Your task to perform on an android device: View the shopping cart on walmart.com. Search for "acer predator" on walmart.com, select the first entry, add it to the cart, then select checkout. Image 0: 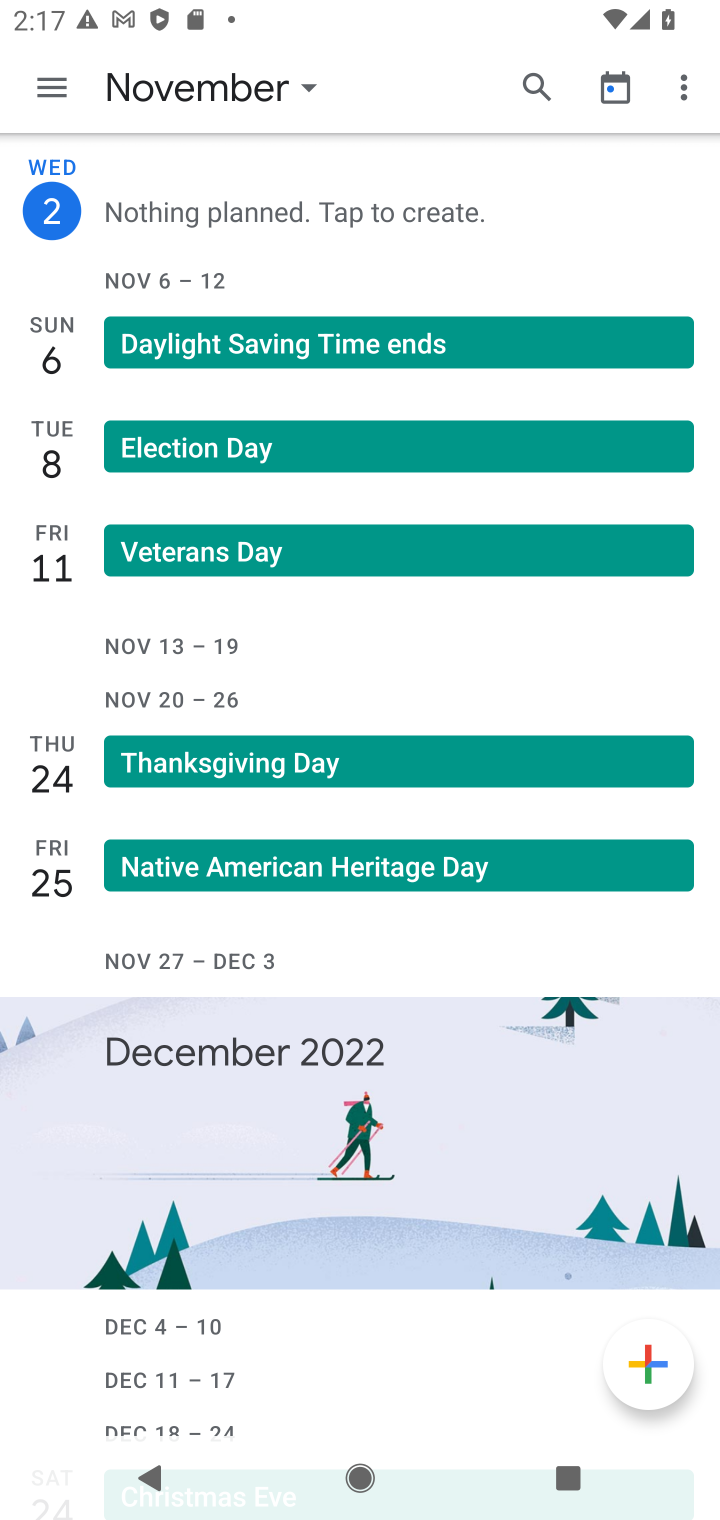
Step 0: press home button
Your task to perform on an android device: View the shopping cart on walmart.com. Search for "acer predator" on walmart.com, select the first entry, add it to the cart, then select checkout. Image 1: 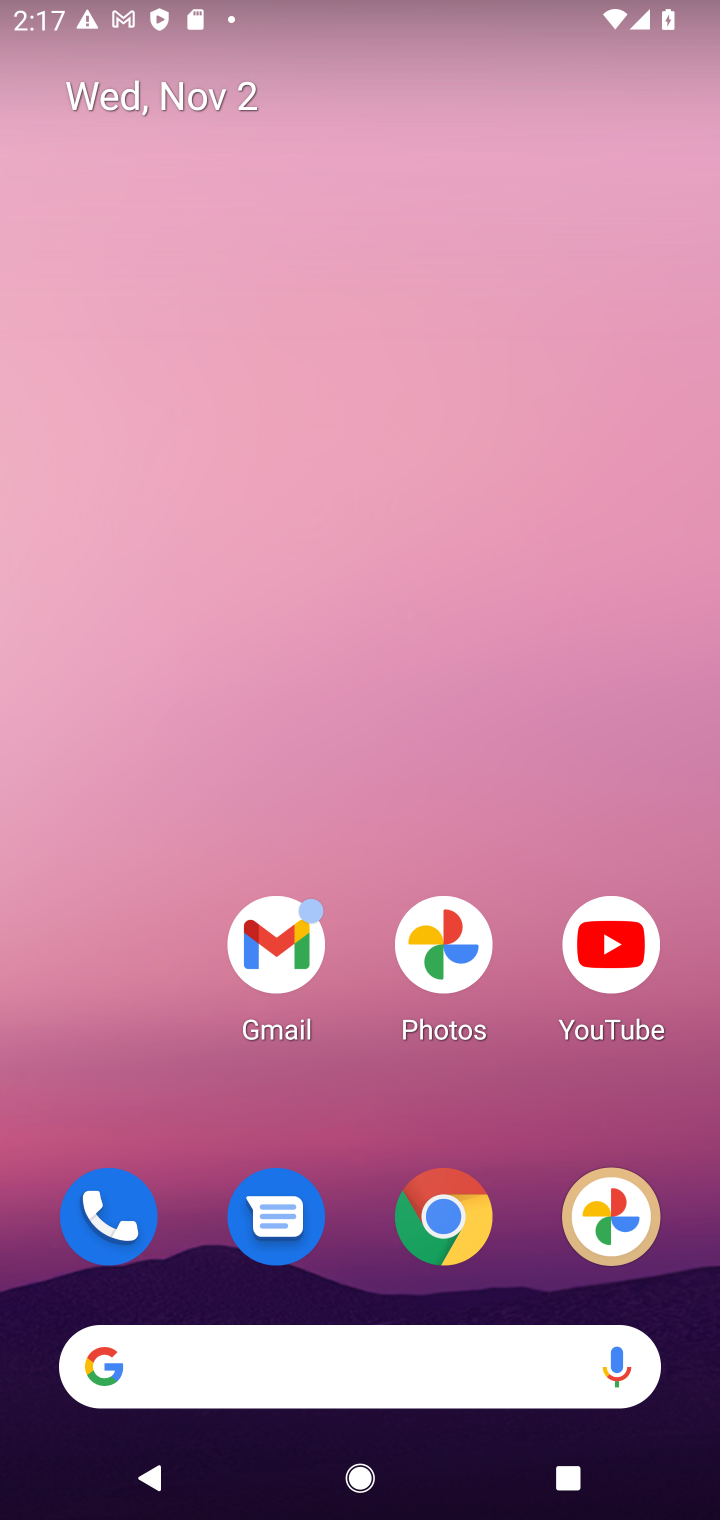
Step 1: click (466, 1230)
Your task to perform on an android device: View the shopping cart on walmart.com. Search for "acer predator" on walmart.com, select the first entry, add it to the cart, then select checkout. Image 2: 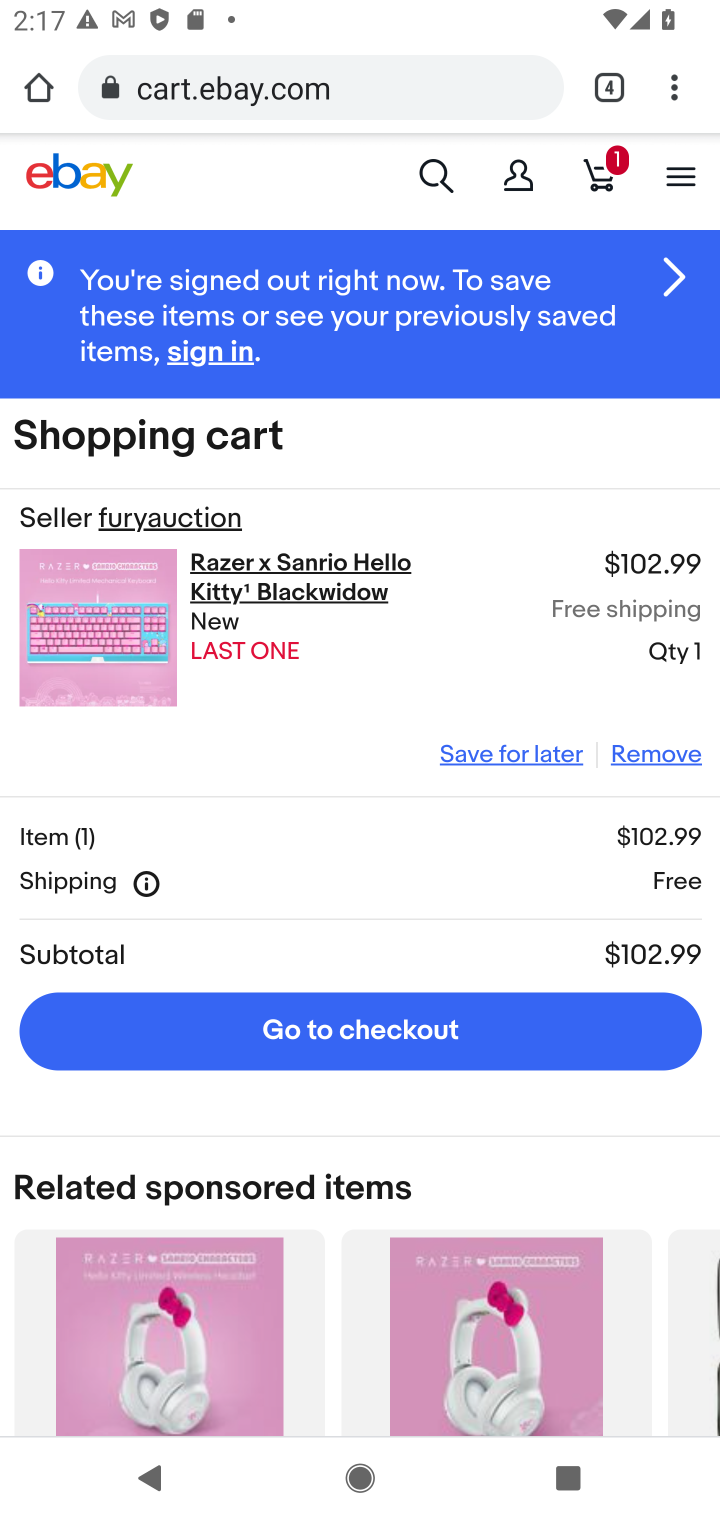
Step 2: click (607, 93)
Your task to perform on an android device: View the shopping cart on walmart.com. Search for "acer predator" on walmart.com, select the first entry, add it to the cart, then select checkout. Image 3: 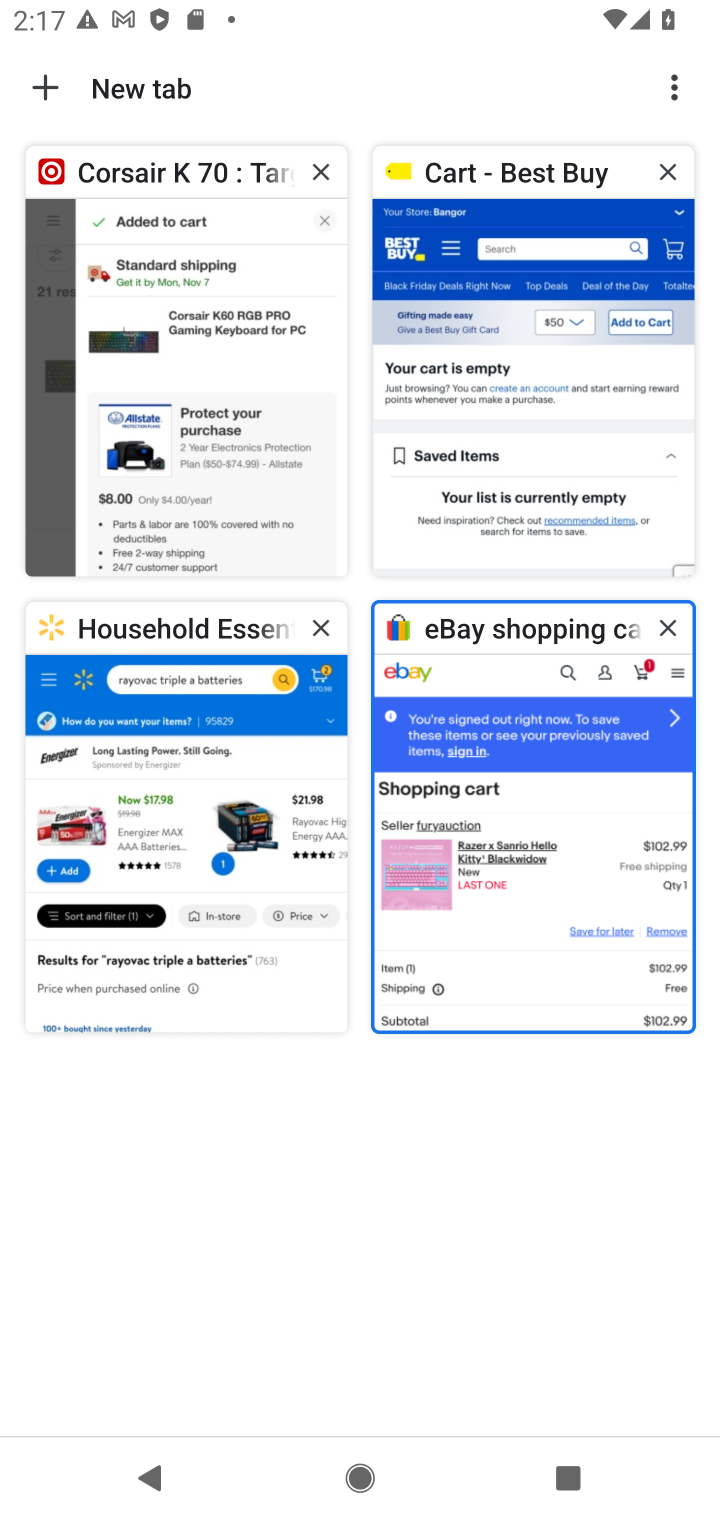
Step 3: click (169, 788)
Your task to perform on an android device: View the shopping cart on walmart.com. Search for "acer predator" on walmart.com, select the first entry, add it to the cart, then select checkout. Image 4: 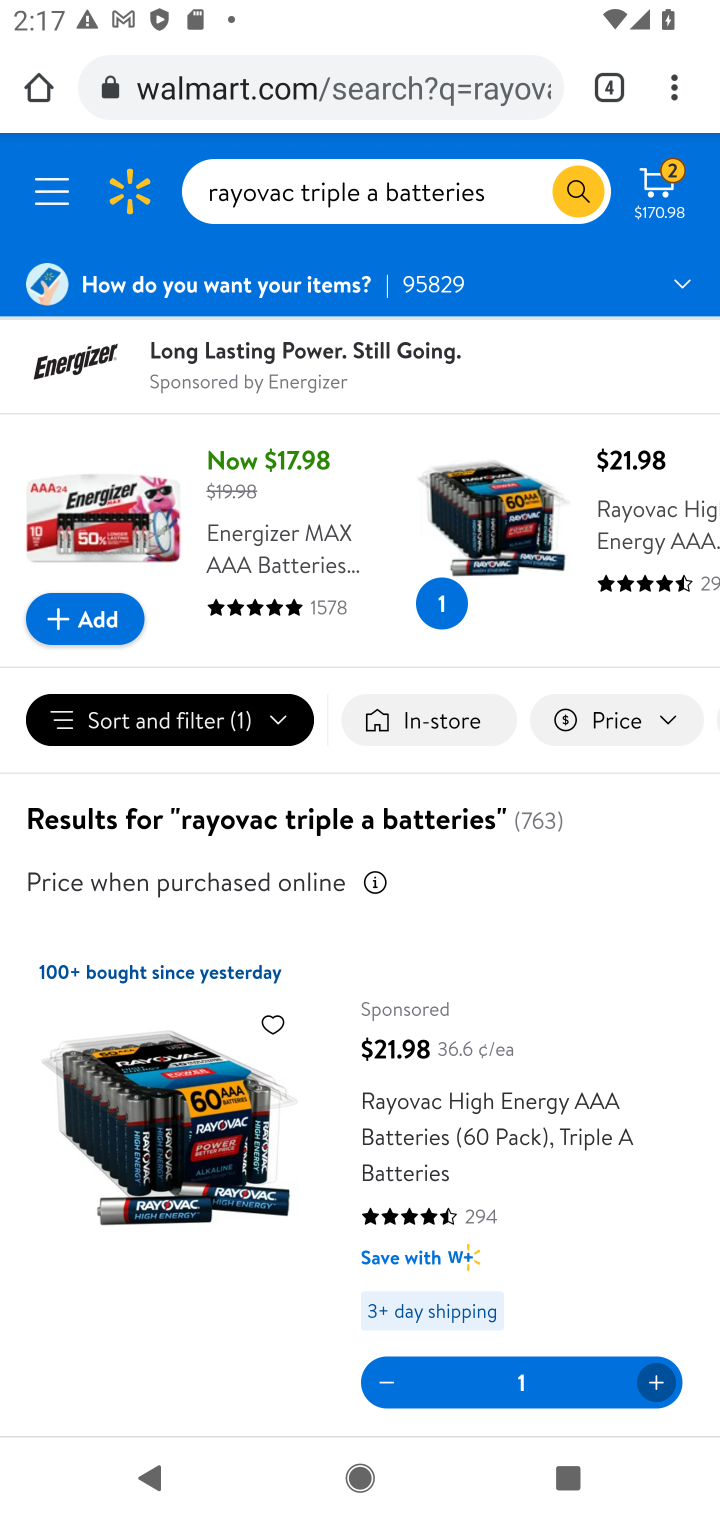
Step 4: click (497, 166)
Your task to perform on an android device: View the shopping cart on walmart.com. Search for "acer predator" on walmart.com, select the first entry, add it to the cart, then select checkout. Image 5: 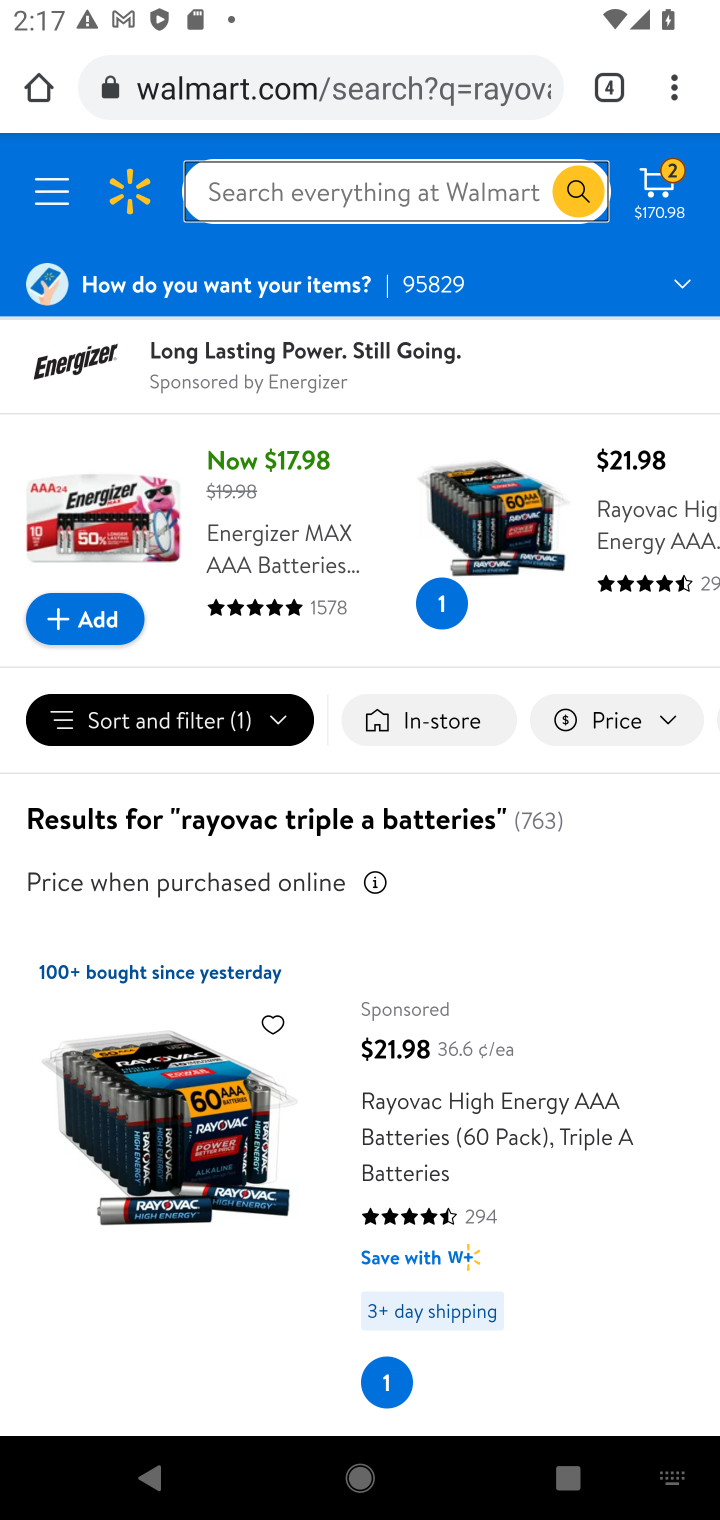
Step 5: type "acer predator"
Your task to perform on an android device: View the shopping cart on walmart.com. Search for "acer predator" on walmart.com, select the first entry, add it to the cart, then select checkout. Image 6: 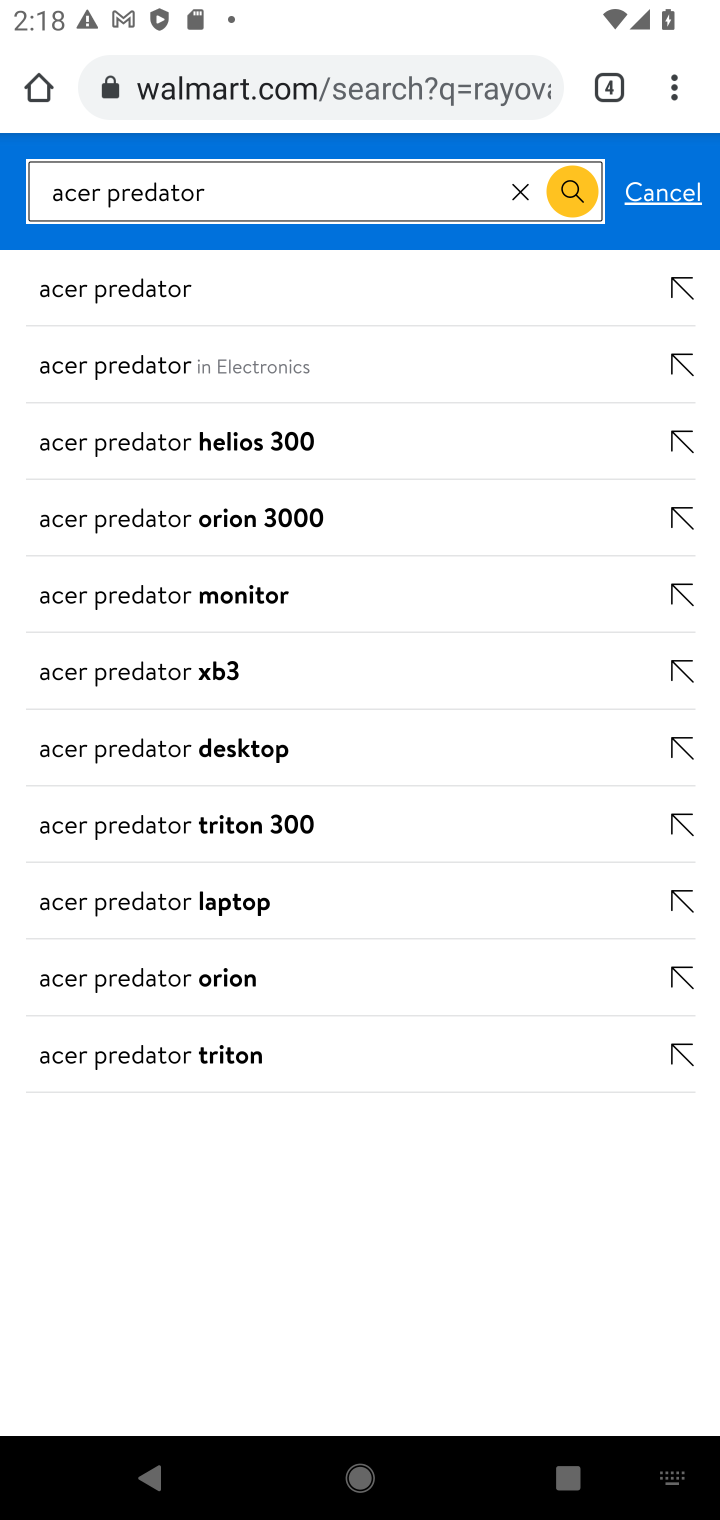
Step 6: click (164, 357)
Your task to perform on an android device: View the shopping cart on walmart.com. Search for "acer predator" on walmart.com, select the first entry, add it to the cart, then select checkout. Image 7: 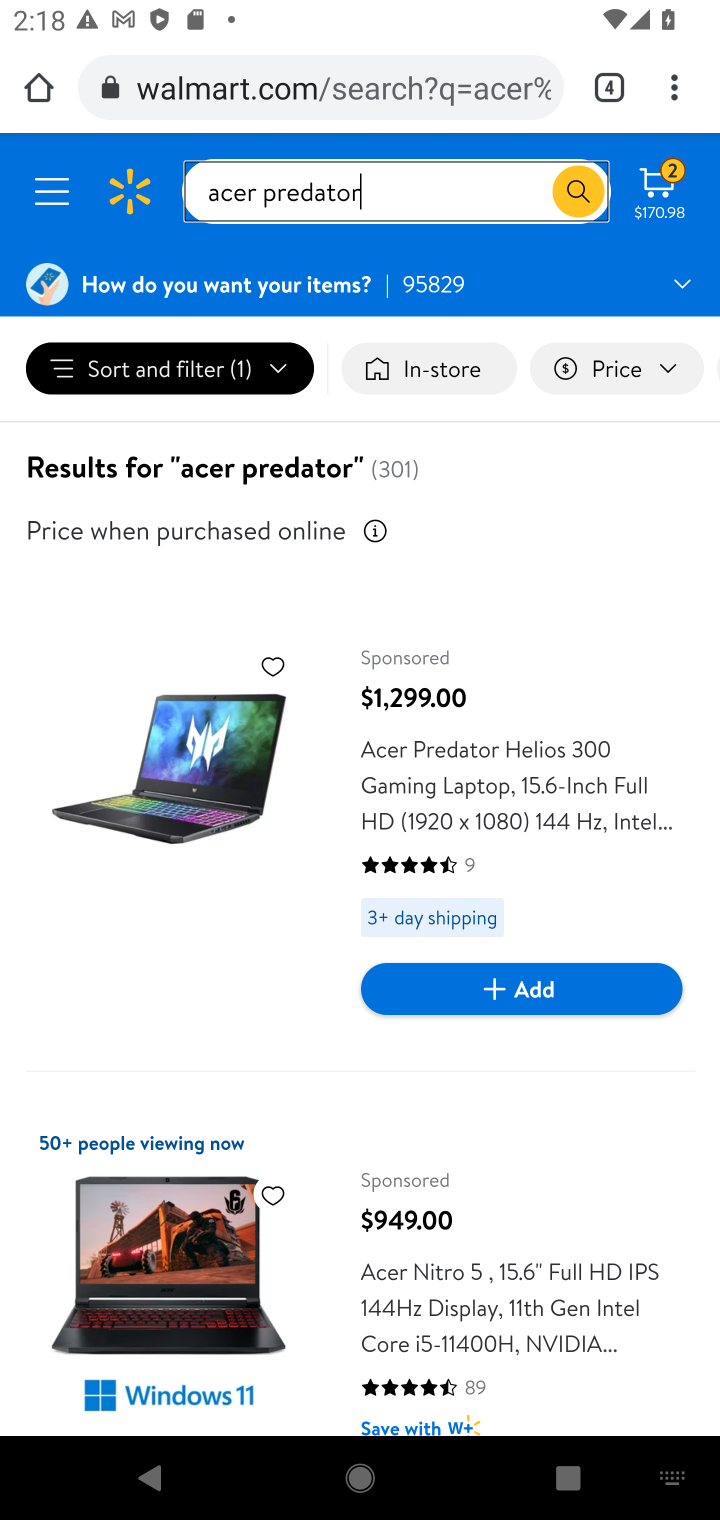
Step 7: click (462, 986)
Your task to perform on an android device: View the shopping cart on walmart.com. Search for "acer predator" on walmart.com, select the first entry, add it to the cart, then select checkout. Image 8: 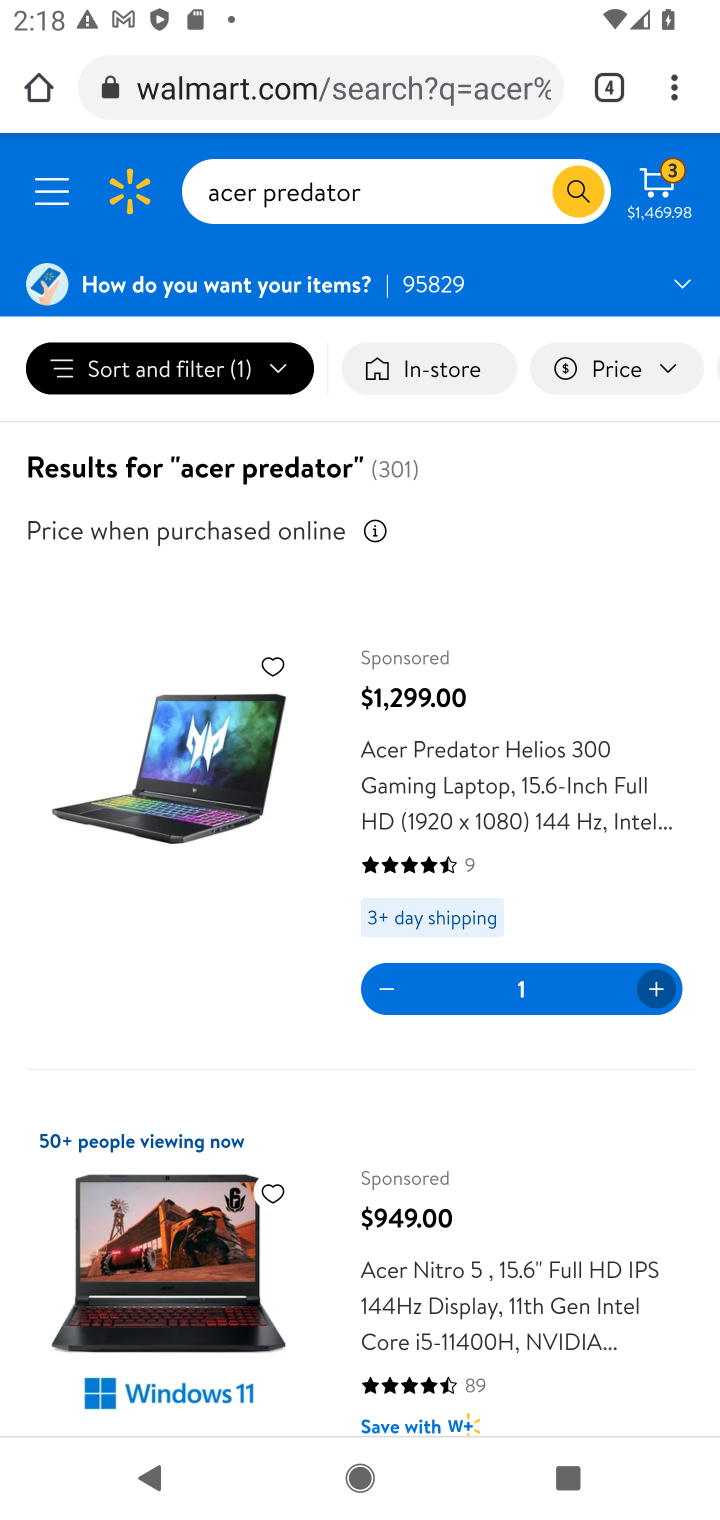
Step 8: task complete